Your task to perform on an android device: Open Amazon Image 0: 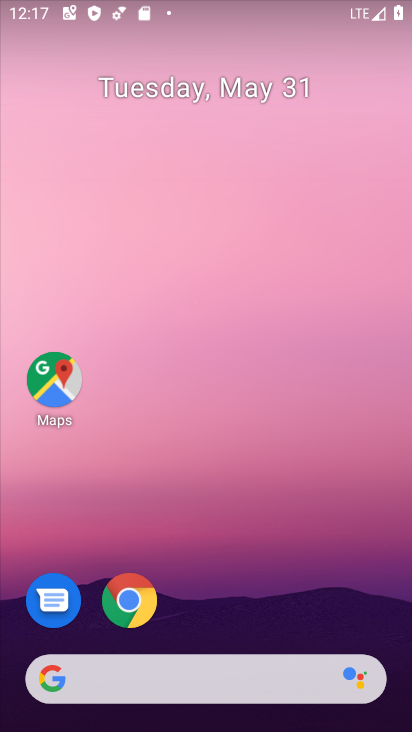
Step 0: click (124, 601)
Your task to perform on an android device: Open Amazon Image 1: 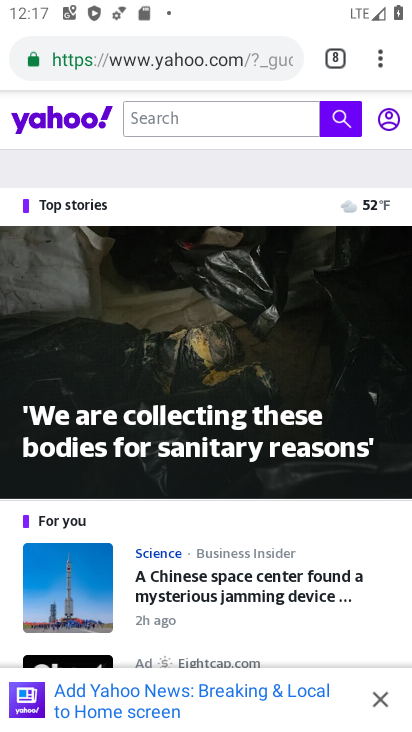
Step 1: click (379, 63)
Your task to perform on an android device: Open Amazon Image 2: 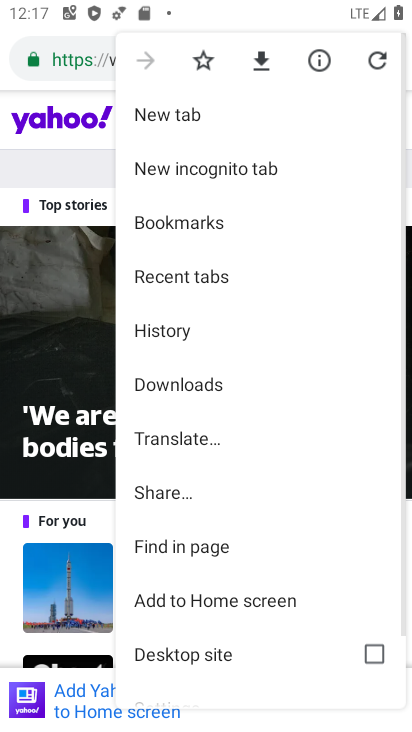
Step 2: click (171, 112)
Your task to perform on an android device: Open Amazon Image 3: 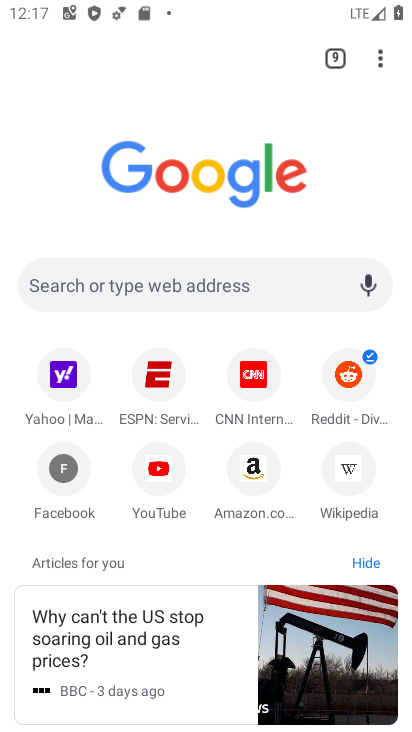
Step 3: click (248, 470)
Your task to perform on an android device: Open Amazon Image 4: 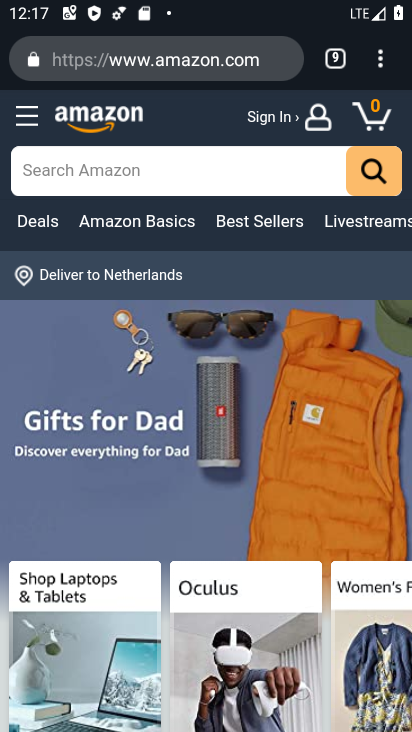
Step 4: task complete